Your task to perform on an android device: When is my next appointment? Image 0: 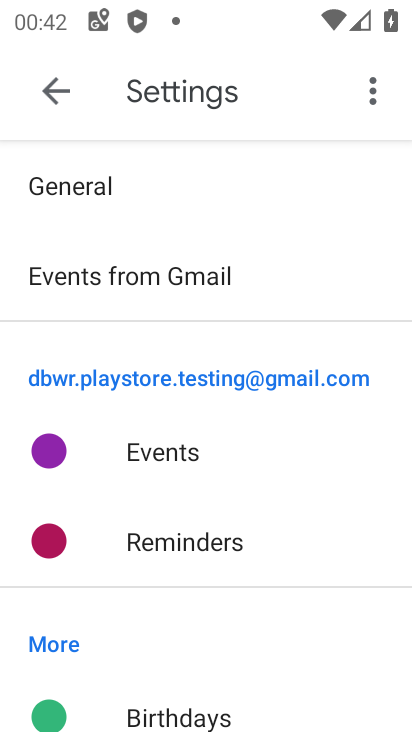
Step 0: press home button
Your task to perform on an android device: When is my next appointment? Image 1: 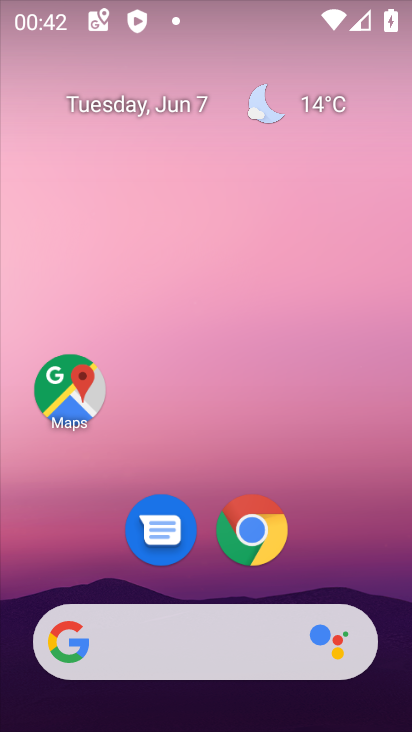
Step 1: drag from (239, 436) to (246, 248)
Your task to perform on an android device: When is my next appointment? Image 2: 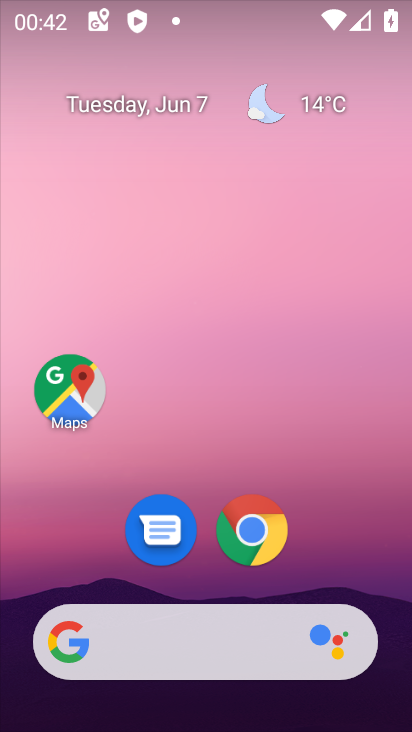
Step 2: drag from (319, 559) to (273, 160)
Your task to perform on an android device: When is my next appointment? Image 3: 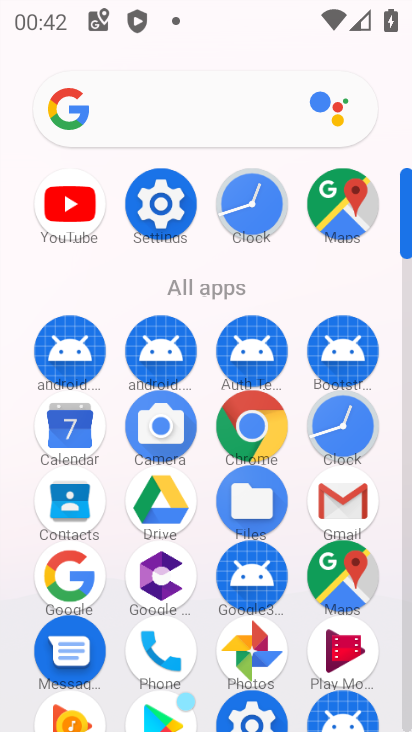
Step 3: click (61, 432)
Your task to perform on an android device: When is my next appointment? Image 4: 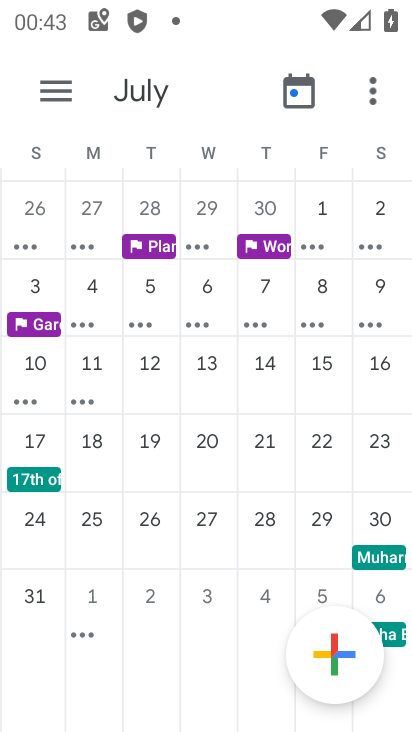
Step 4: drag from (54, 236) to (379, 243)
Your task to perform on an android device: When is my next appointment? Image 5: 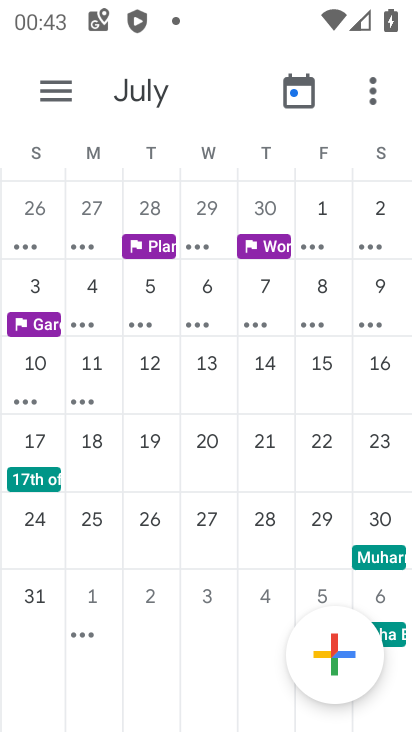
Step 5: click (316, 287)
Your task to perform on an android device: When is my next appointment? Image 6: 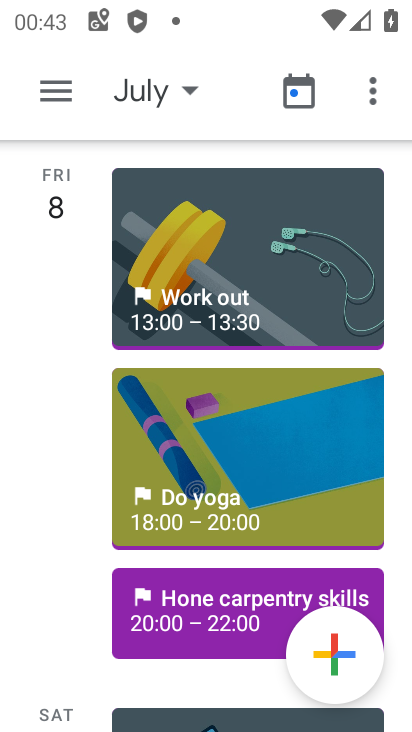
Step 6: task complete